Your task to perform on an android device: Open Google Maps and go to "Timeline" Image 0: 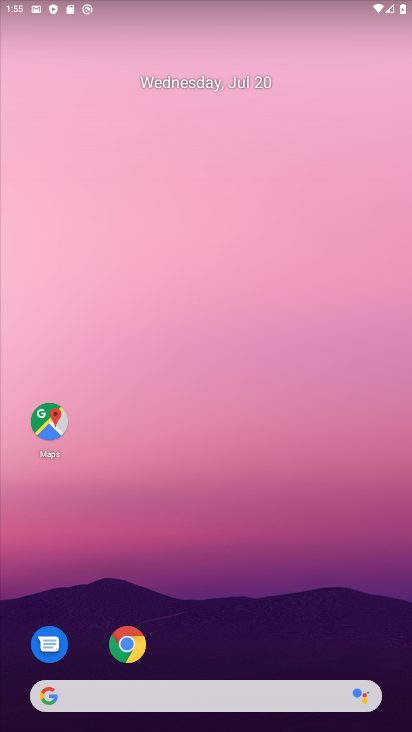
Step 0: press home button
Your task to perform on an android device: Open Google Maps and go to "Timeline" Image 1: 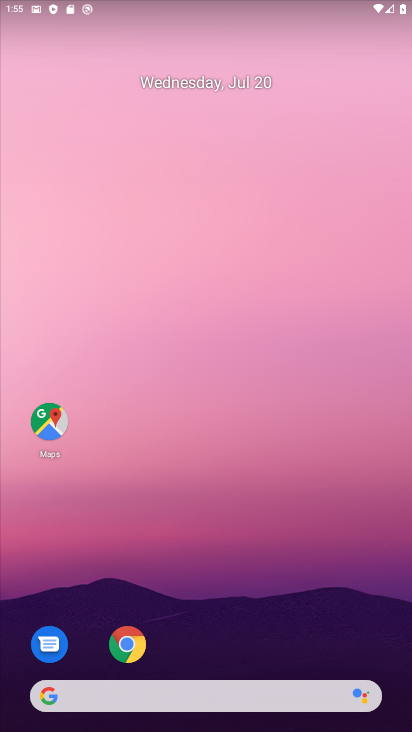
Step 1: drag from (295, 615) to (277, 289)
Your task to perform on an android device: Open Google Maps and go to "Timeline" Image 2: 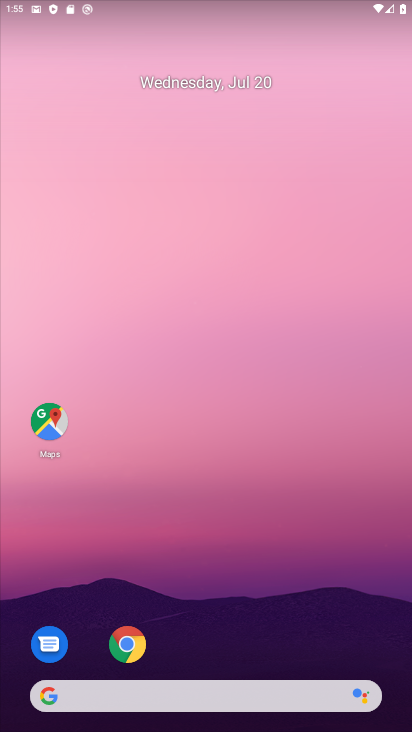
Step 2: click (31, 433)
Your task to perform on an android device: Open Google Maps and go to "Timeline" Image 3: 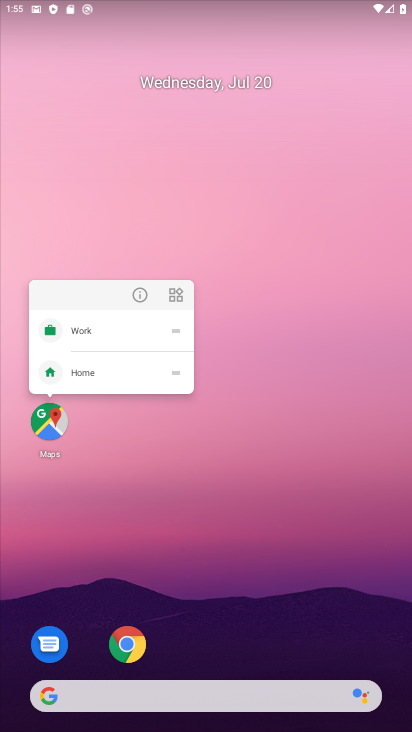
Step 3: click (40, 422)
Your task to perform on an android device: Open Google Maps and go to "Timeline" Image 4: 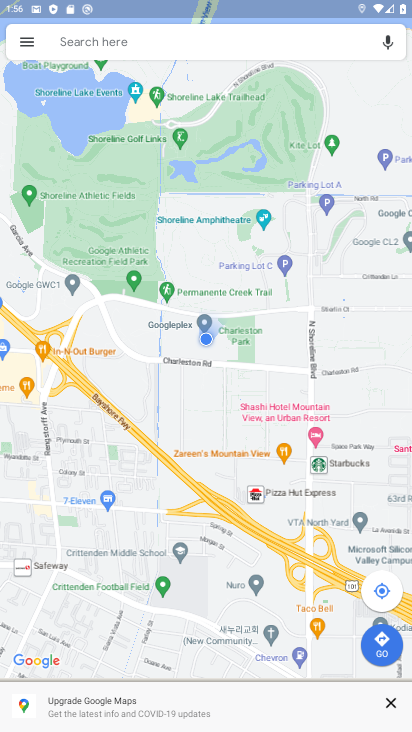
Step 4: click (30, 44)
Your task to perform on an android device: Open Google Maps and go to "Timeline" Image 5: 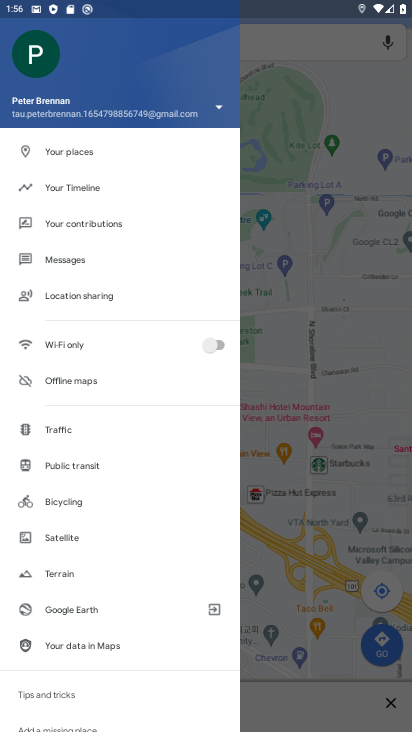
Step 5: click (86, 192)
Your task to perform on an android device: Open Google Maps and go to "Timeline" Image 6: 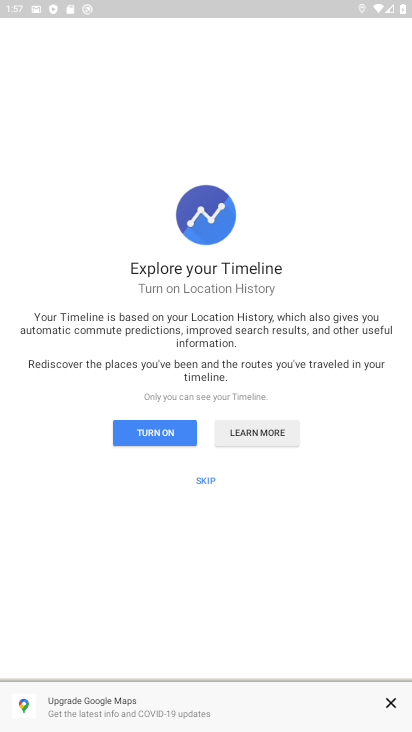
Step 6: click (200, 479)
Your task to perform on an android device: Open Google Maps and go to "Timeline" Image 7: 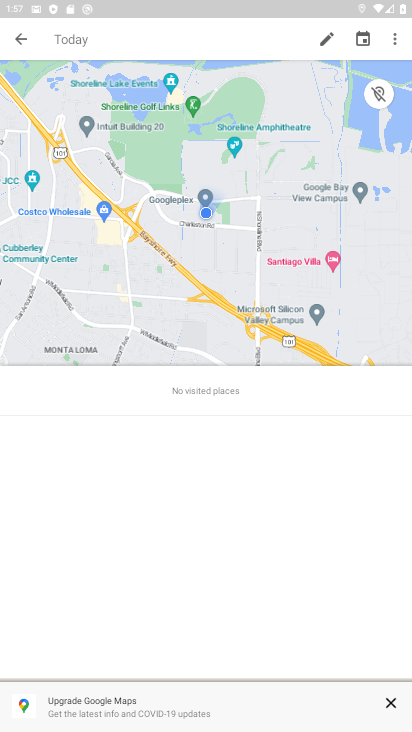
Step 7: task complete